Your task to perform on an android device: Open calendar and show me the second week of next month Image 0: 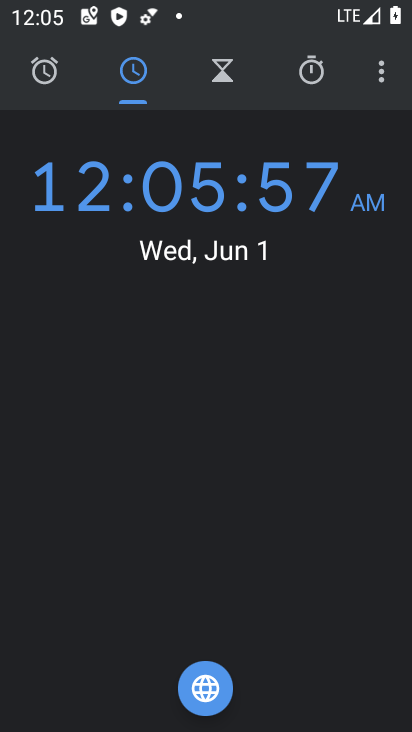
Step 0: press home button
Your task to perform on an android device: Open calendar and show me the second week of next month Image 1: 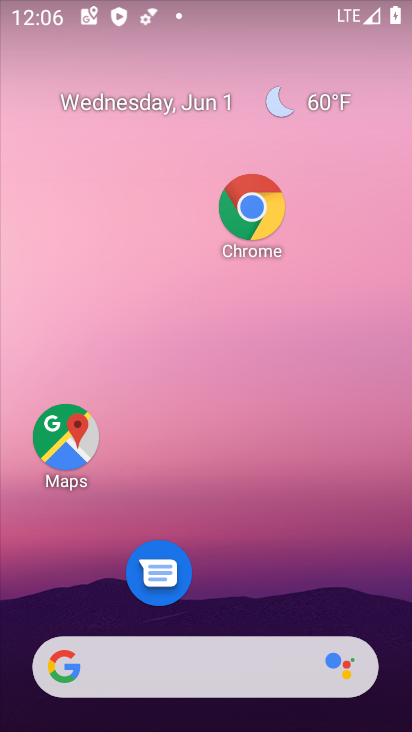
Step 1: drag from (227, 613) to (194, 270)
Your task to perform on an android device: Open calendar and show me the second week of next month Image 2: 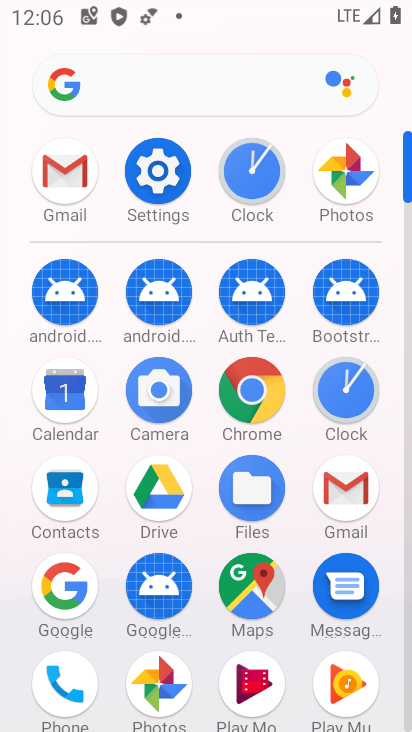
Step 2: click (73, 398)
Your task to perform on an android device: Open calendar and show me the second week of next month Image 3: 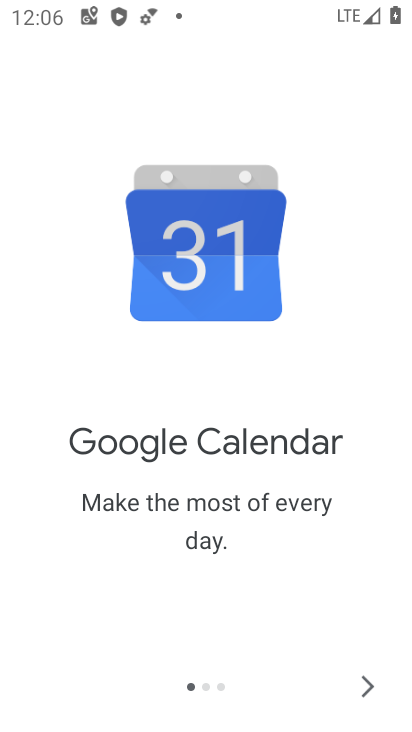
Step 3: click (356, 681)
Your task to perform on an android device: Open calendar and show me the second week of next month Image 4: 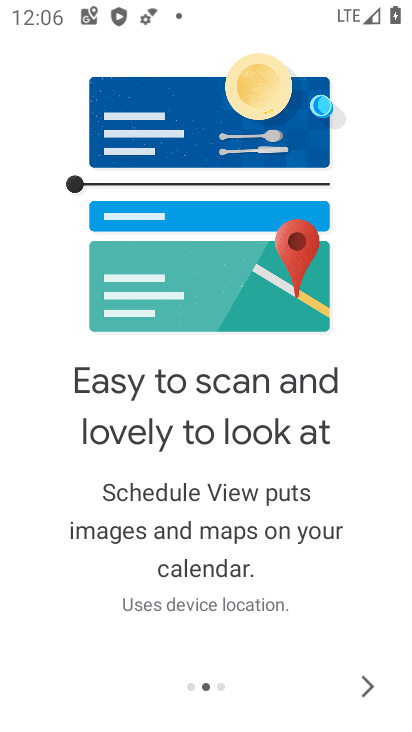
Step 4: click (357, 680)
Your task to perform on an android device: Open calendar and show me the second week of next month Image 5: 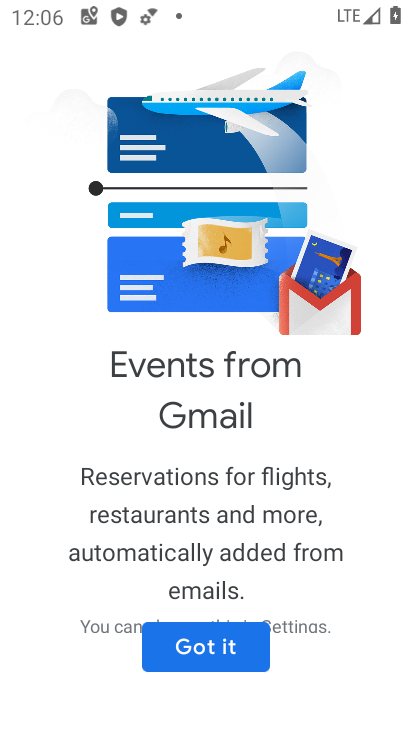
Step 5: click (238, 639)
Your task to perform on an android device: Open calendar and show me the second week of next month Image 6: 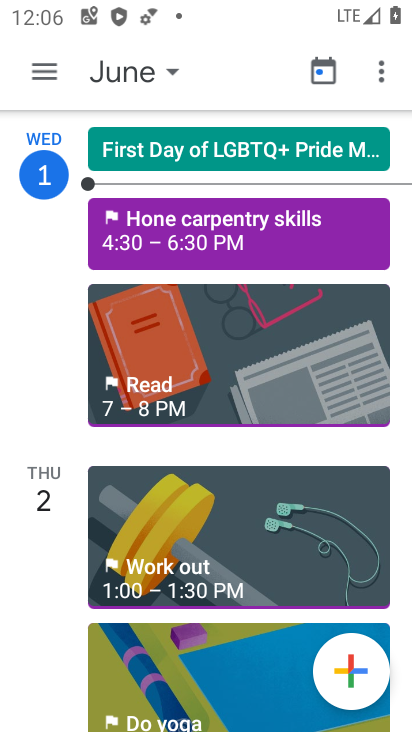
Step 6: click (168, 63)
Your task to perform on an android device: Open calendar and show me the second week of next month Image 7: 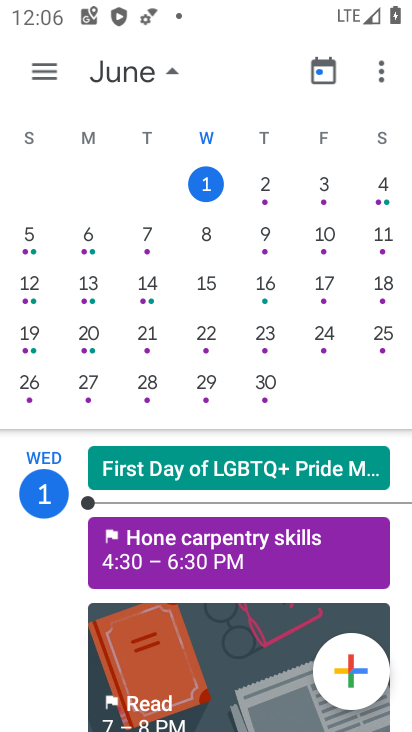
Step 7: drag from (352, 261) to (17, 266)
Your task to perform on an android device: Open calendar and show me the second week of next month Image 8: 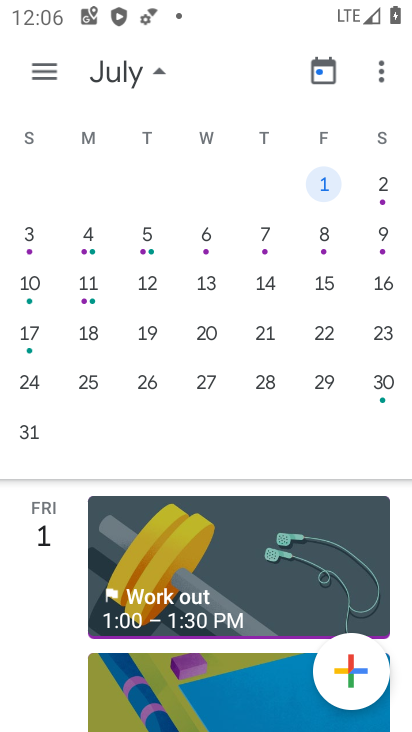
Step 8: click (28, 248)
Your task to perform on an android device: Open calendar and show me the second week of next month Image 9: 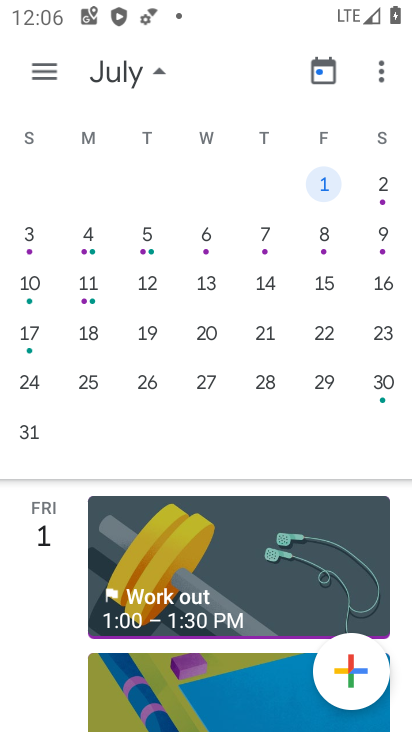
Step 9: click (28, 240)
Your task to perform on an android device: Open calendar and show me the second week of next month Image 10: 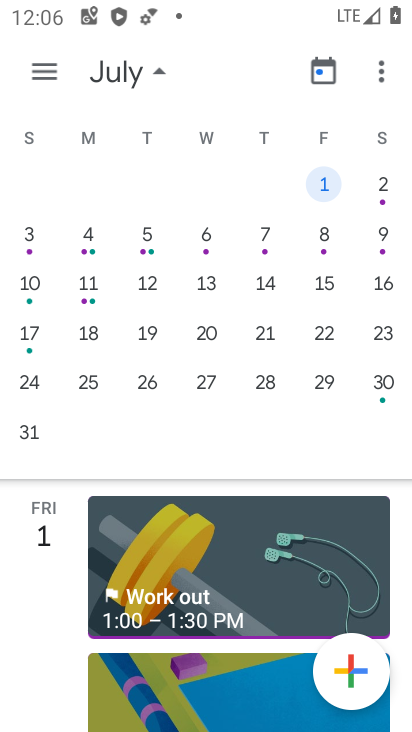
Step 10: click (45, 236)
Your task to perform on an android device: Open calendar and show me the second week of next month Image 11: 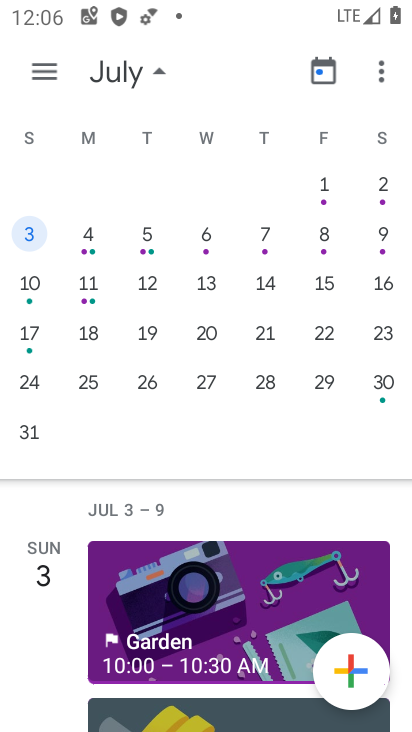
Step 11: click (72, 242)
Your task to perform on an android device: Open calendar and show me the second week of next month Image 12: 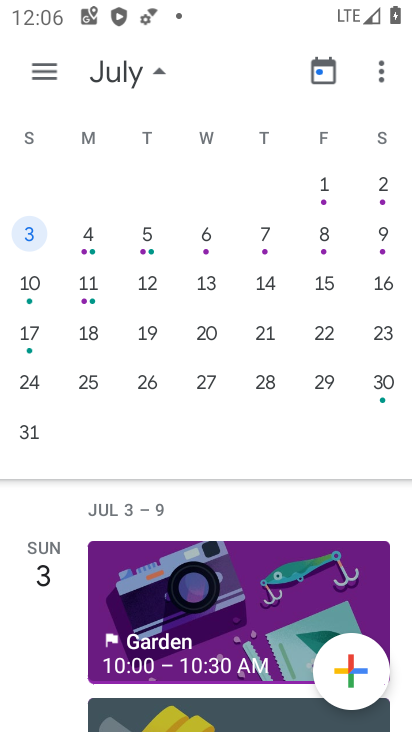
Step 12: click (85, 242)
Your task to perform on an android device: Open calendar and show me the second week of next month Image 13: 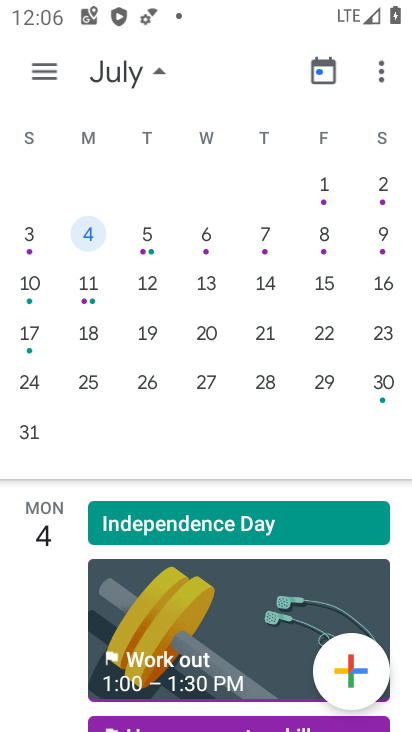
Step 13: task complete